Your task to perform on an android device: move an email to a new category in the gmail app Image 0: 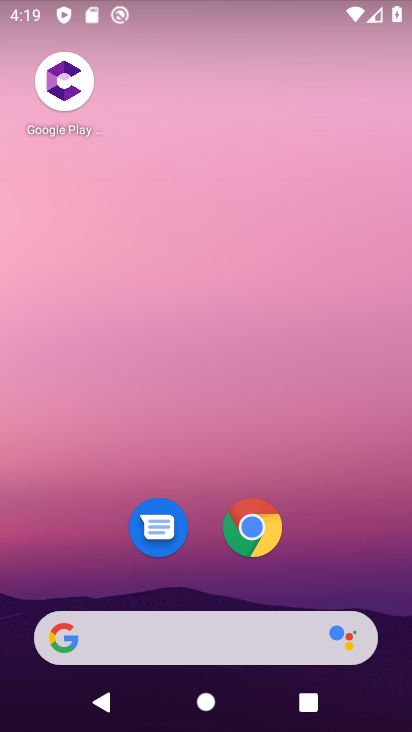
Step 0: press home button
Your task to perform on an android device: move an email to a new category in the gmail app Image 1: 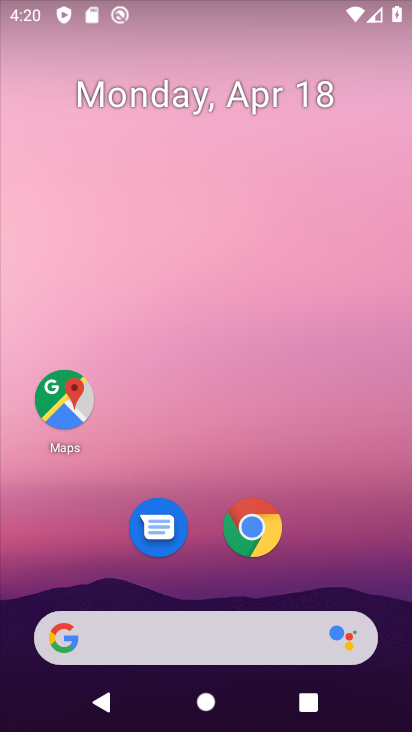
Step 1: drag from (207, 585) to (249, 63)
Your task to perform on an android device: move an email to a new category in the gmail app Image 2: 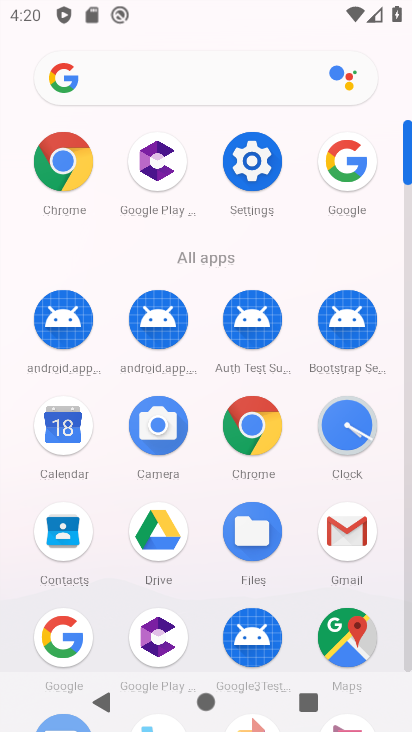
Step 2: click (347, 523)
Your task to perform on an android device: move an email to a new category in the gmail app Image 3: 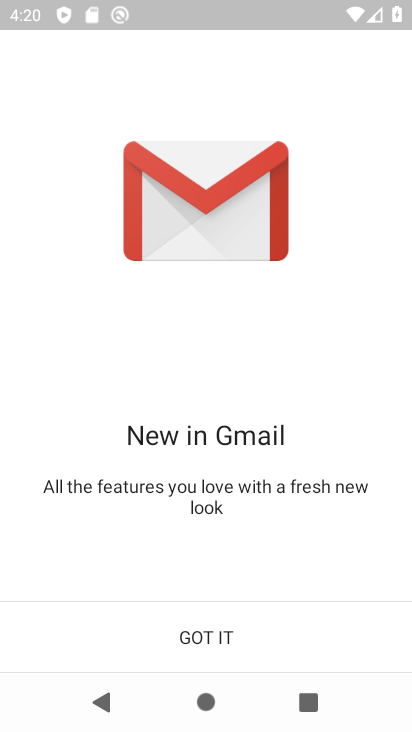
Step 3: click (209, 646)
Your task to perform on an android device: move an email to a new category in the gmail app Image 4: 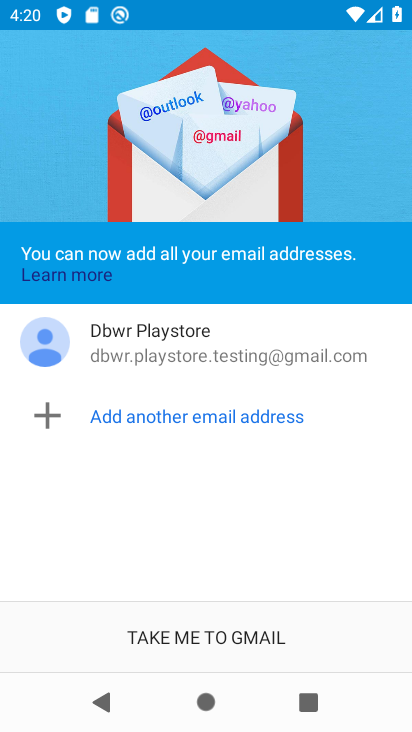
Step 4: click (201, 647)
Your task to perform on an android device: move an email to a new category in the gmail app Image 5: 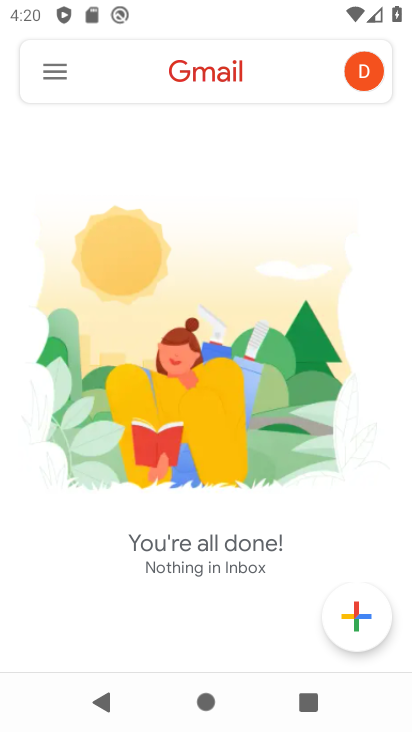
Step 5: click (49, 66)
Your task to perform on an android device: move an email to a new category in the gmail app Image 6: 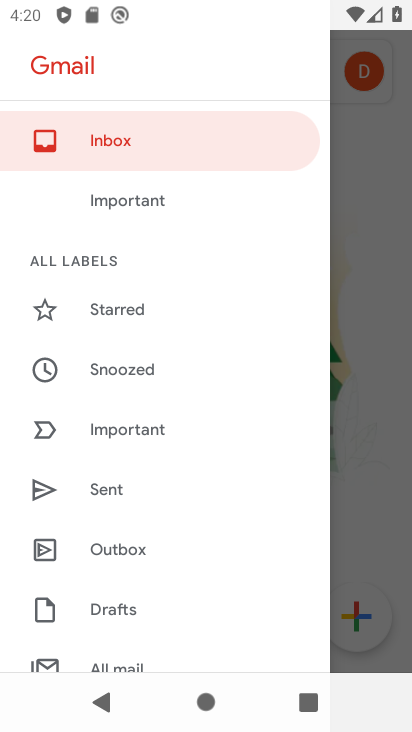
Step 6: click (110, 653)
Your task to perform on an android device: move an email to a new category in the gmail app Image 7: 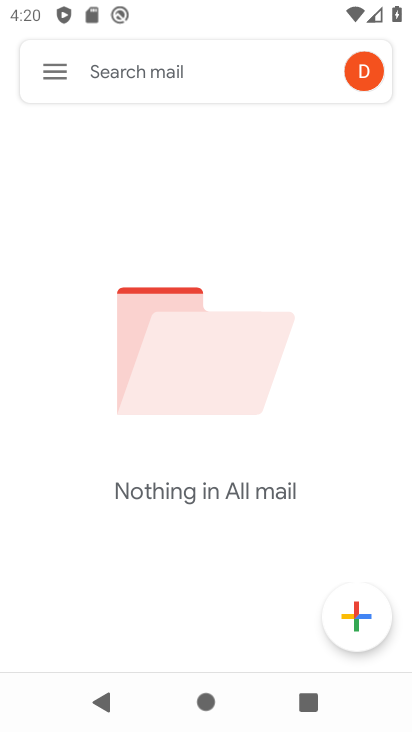
Step 7: task complete